Your task to perform on an android device: Open CNN.com Image 0: 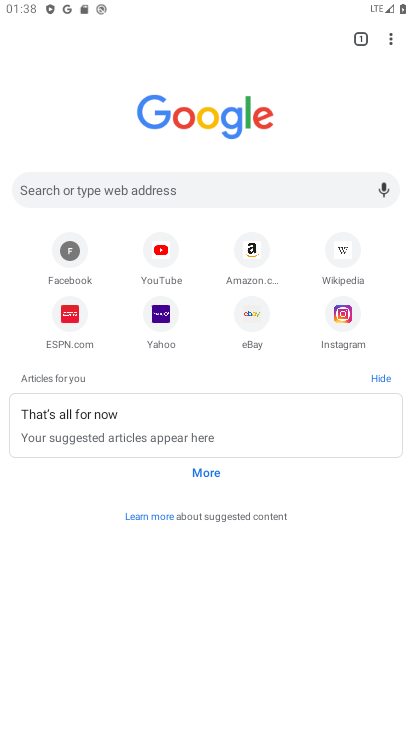
Step 0: click (209, 187)
Your task to perform on an android device: Open CNN.com Image 1: 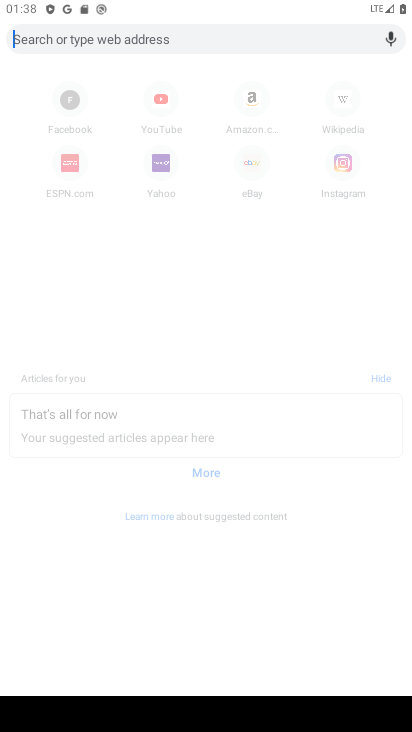
Step 1: type "cnn.com"
Your task to perform on an android device: Open CNN.com Image 2: 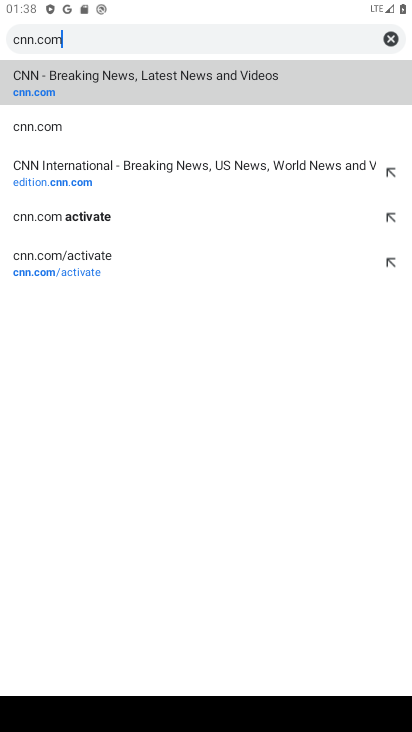
Step 2: click (206, 84)
Your task to perform on an android device: Open CNN.com Image 3: 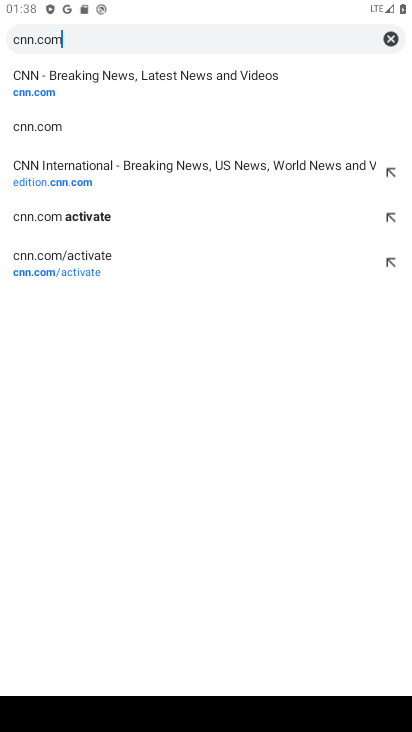
Step 3: click (206, 84)
Your task to perform on an android device: Open CNN.com Image 4: 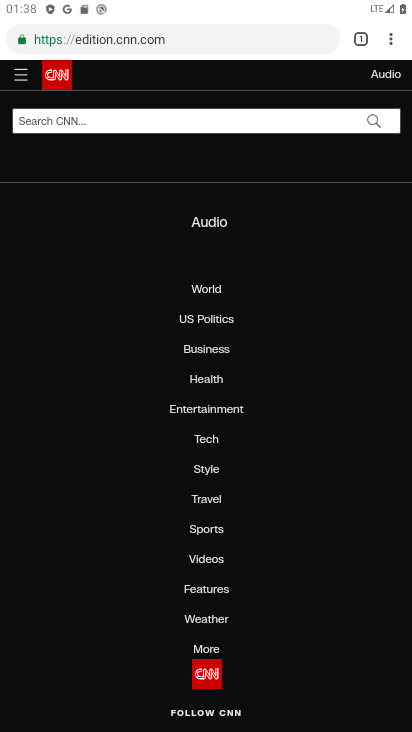
Step 4: task complete